Your task to perform on an android device: Is it going to rain today? Image 0: 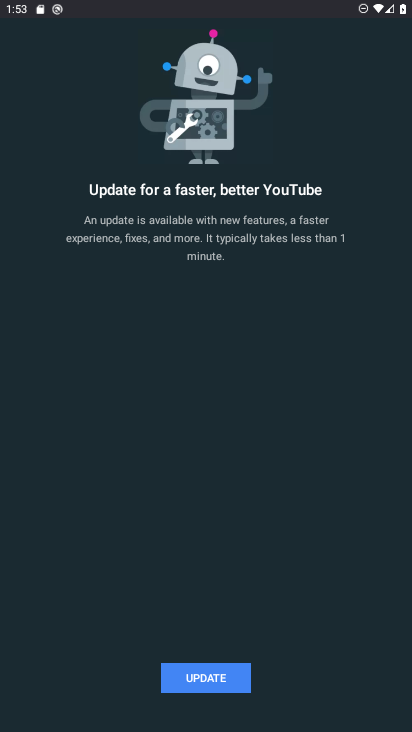
Step 0: press back button
Your task to perform on an android device: Is it going to rain today? Image 1: 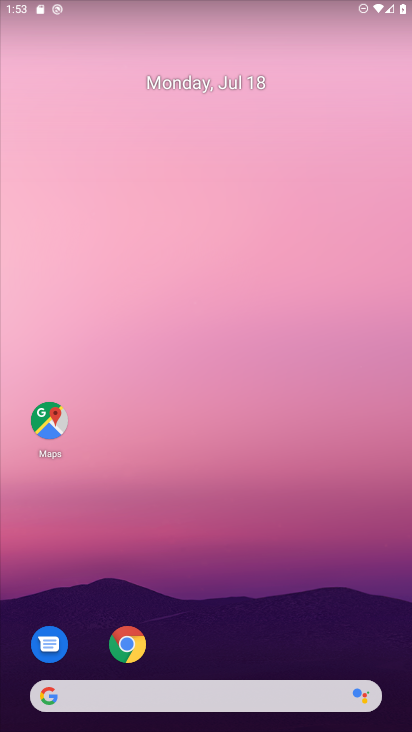
Step 1: click (261, 690)
Your task to perform on an android device: Is it going to rain today? Image 2: 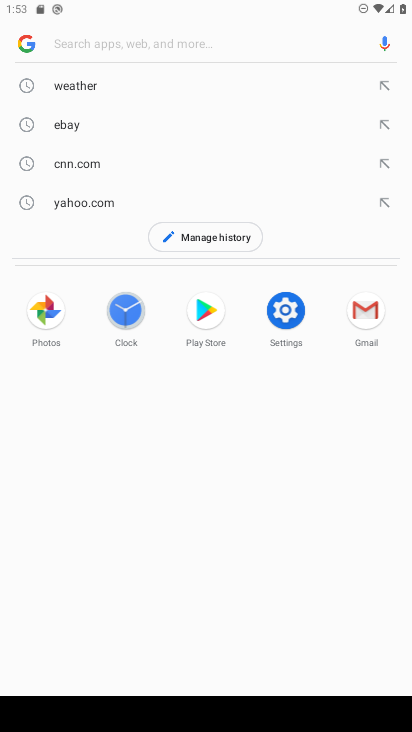
Step 2: click (151, 81)
Your task to perform on an android device: Is it going to rain today? Image 3: 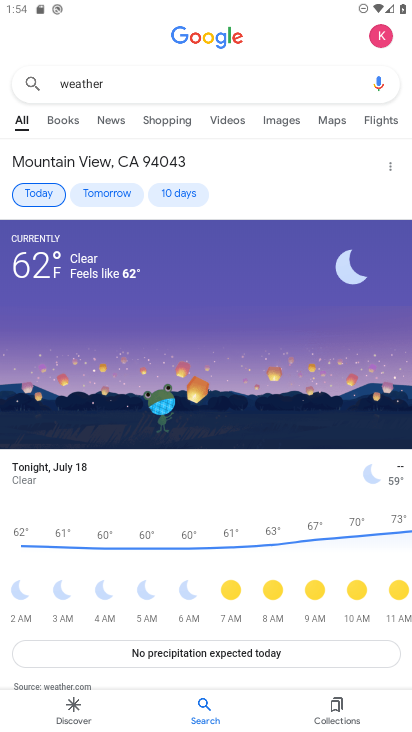
Step 3: task complete